Your task to perform on an android device: turn on javascript in the chrome app Image 0: 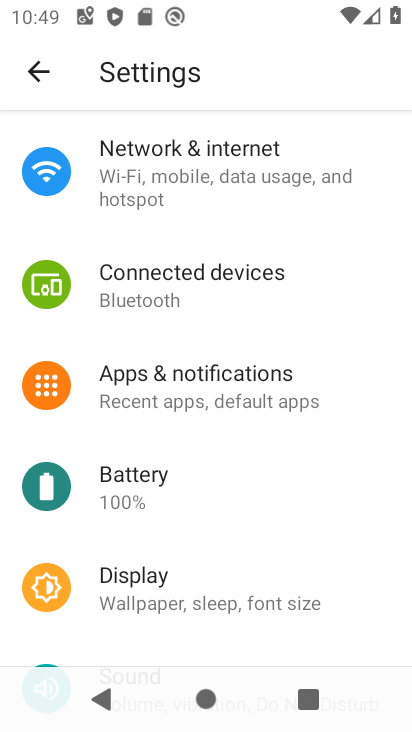
Step 0: press home button
Your task to perform on an android device: turn on javascript in the chrome app Image 1: 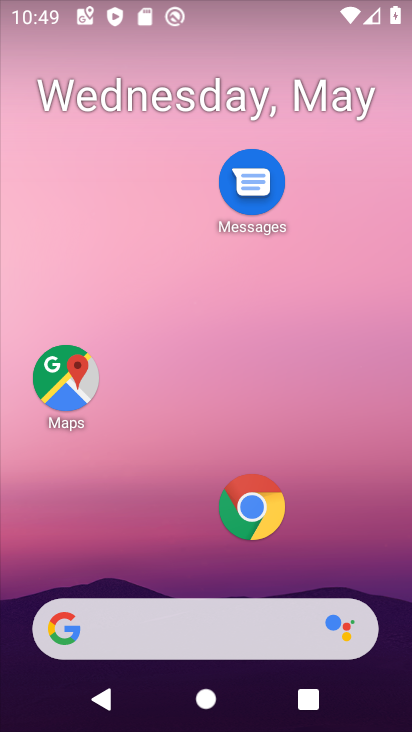
Step 1: click (248, 496)
Your task to perform on an android device: turn on javascript in the chrome app Image 2: 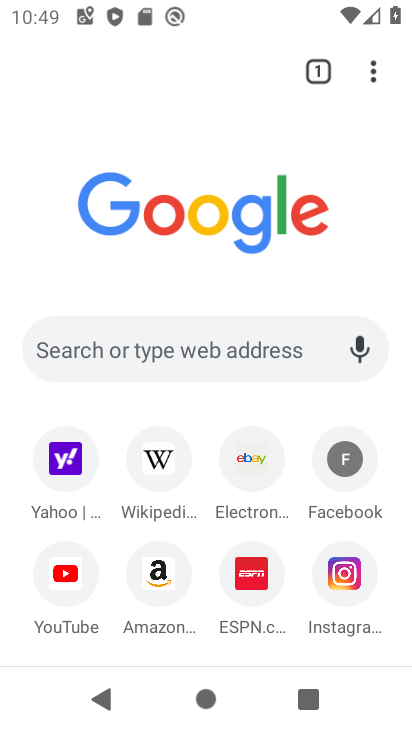
Step 2: click (376, 65)
Your task to perform on an android device: turn on javascript in the chrome app Image 3: 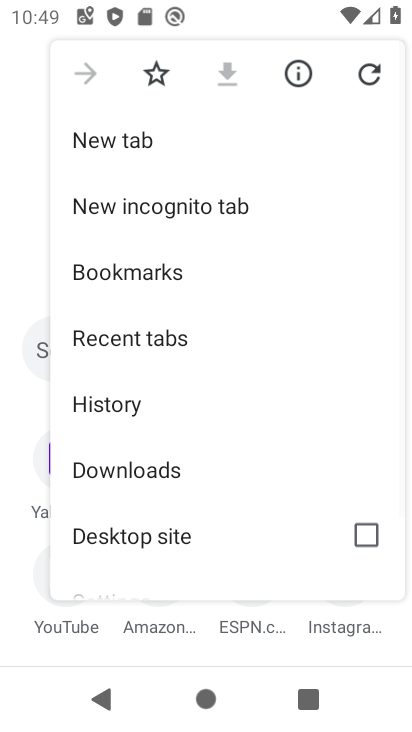
Step 3: drag from (230, 521) to (263, 116)
Your task to perform on an android device: turn on javascript in the chrome app Image 4: 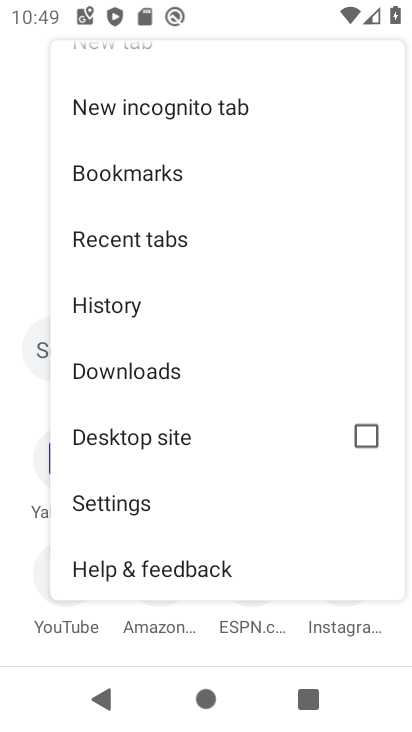
Step 4: click (165, 500)
Your task to perform on an android device: turn on javascript in the chrome app Image 5: 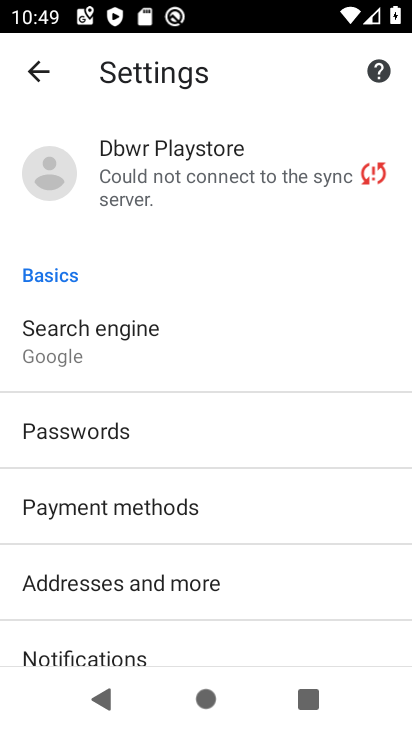
Step 5: drag from (234, 629) to (244, 155)
Your task to perform on an android device: turn on javascript in the chrome app Image 6: 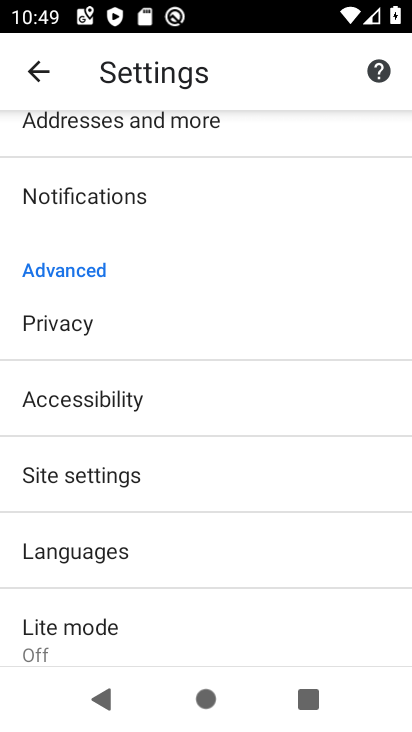
Step 6: click (154, 470)
Your task to perform on an android device: turn on javascript in the chrome app Image 7: 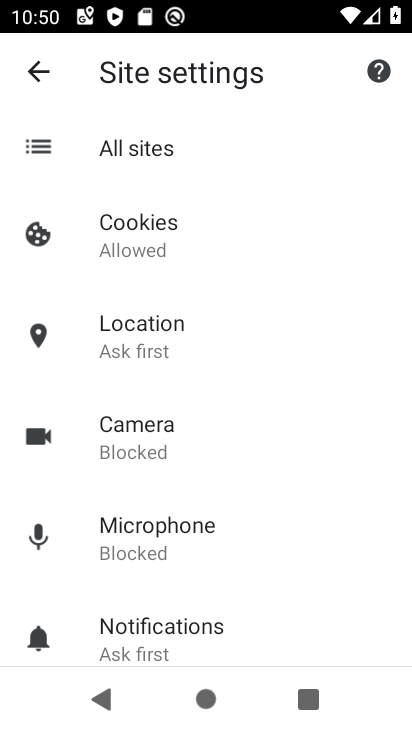
Step 7: drag from (237, 602) to (245, 137)
Your task to perform on an android device: turn on javascript in the chrome app Image 8: 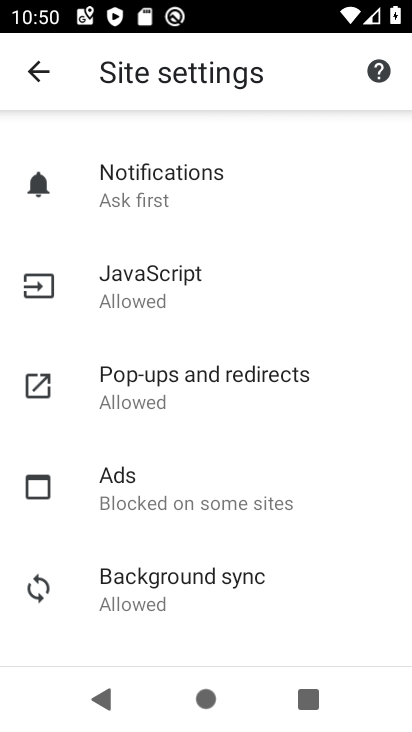
Step 8: click (185, 292)
Your task to perform on an android device: turn on javascript in the chrome app Image 9: 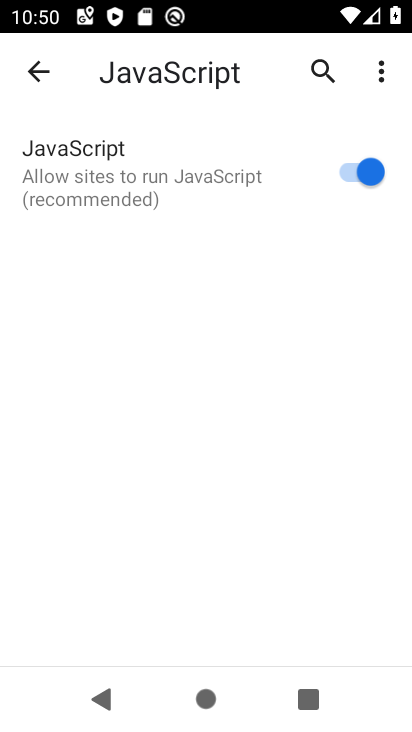
Step 9: task complete